Your task to perform on an android device: open wifi settings Image 0: 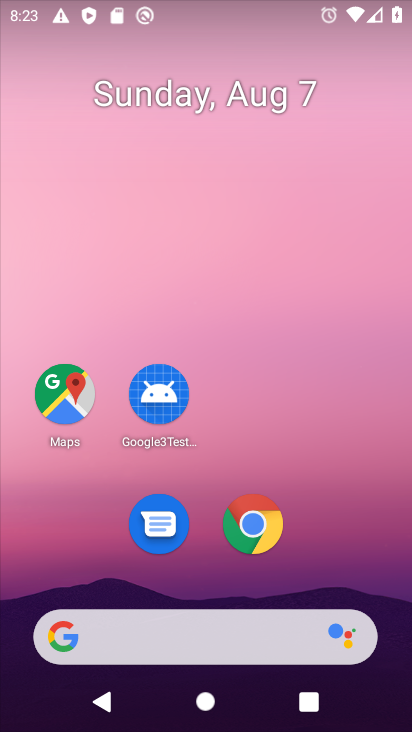
Step 0: drag from (227, 597) to (105, 47)
Your task to perform on an android device: open wifi settings Image 1: 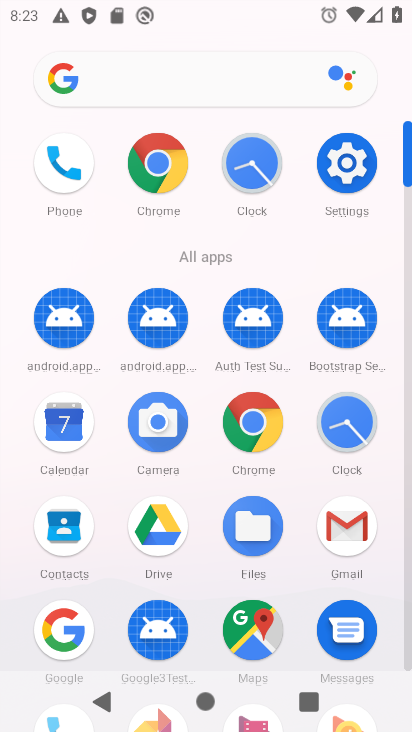
Step 1: click (347, 140)
Your task to perform on an android device: open wifi settings Image 2: 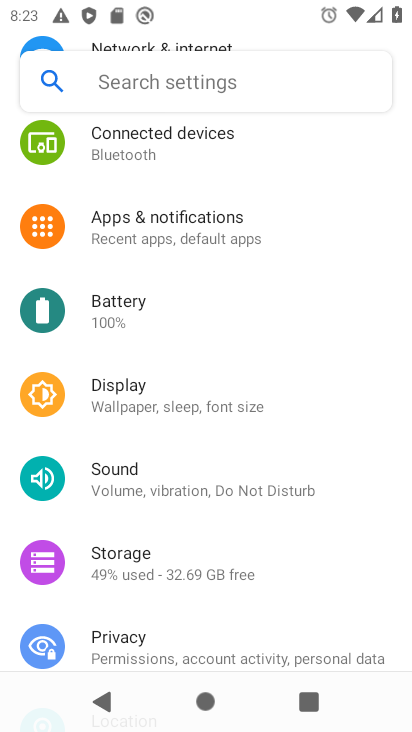
Step 2: drag from (347, 140) to (368, 372)
Your task to perform on an android device: open wifi settings Image 3: 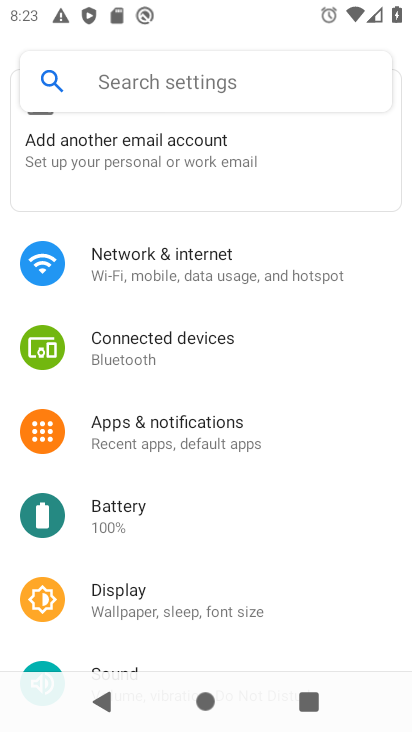
Step 3: click (169, 281)
Your task to perform on an android device: open wifi settings Image 4: 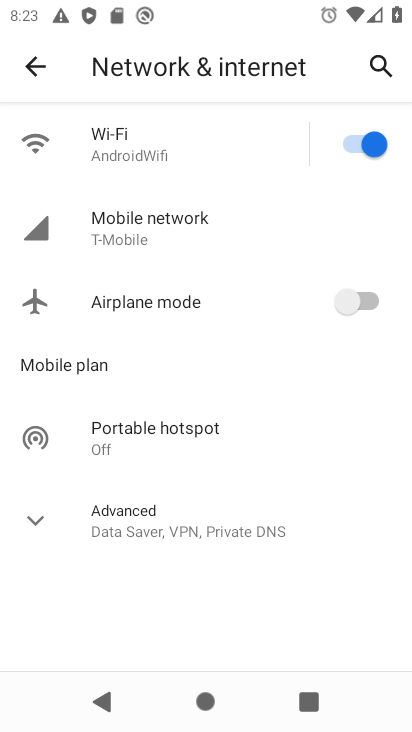
Step 4: click (129, 161)
Your task to perform on an android device: open wifi settings Image 5: 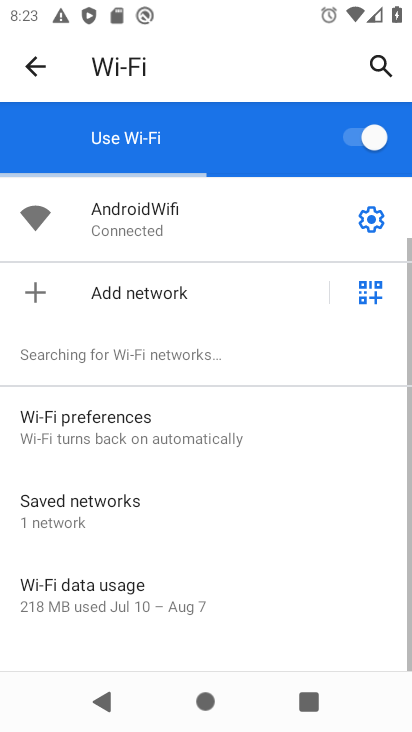
Step 5: task complete